Your task to perform on an android device: turn notification dots off Image 0: 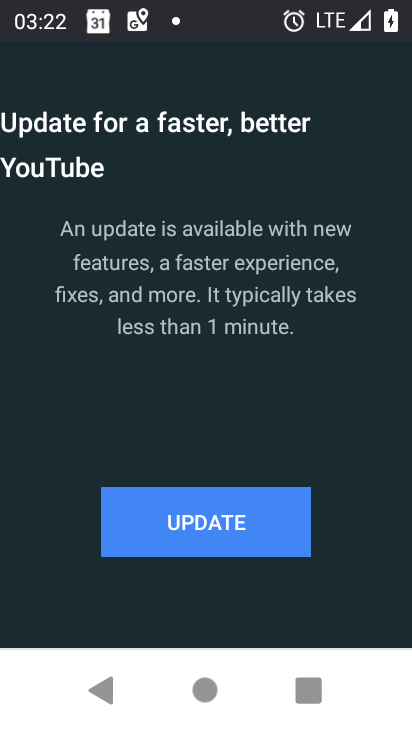
Step 0: press home button
Your task to perform on an android device: turn notification dots off Image 1: 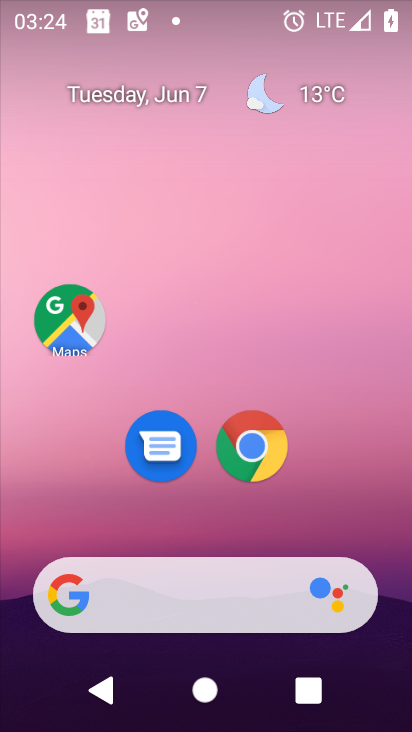
Step 1: drag from (252, 610) to (289, 0)
Your task to perform on an android device: turn notification dots off Image 2: 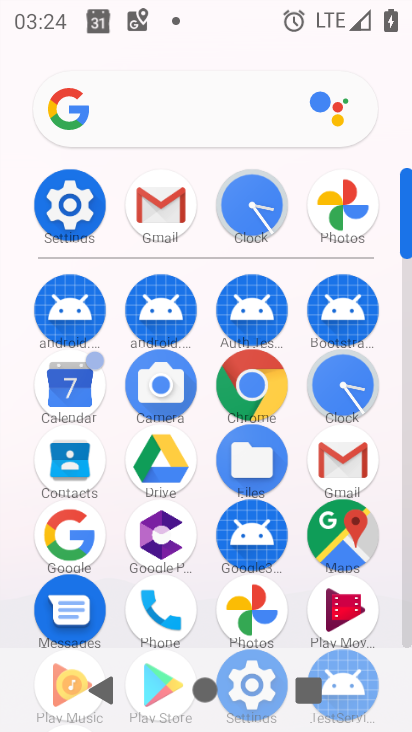
Step 2: click (76, 211)
Your task to perform on an android device: turn notification dots off Image 3: 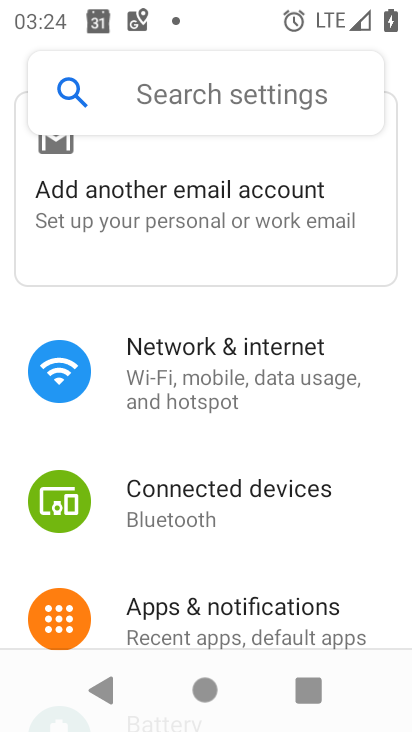
Step 3: click (238, 625)
Your task to perform on an android device: turn notification dots off Image 4: 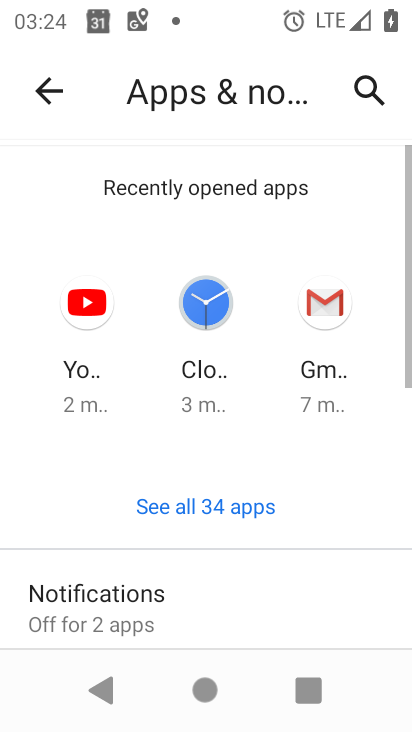
Step 4: drag from (244, 616) to (317, 155)
Your task to perform on an android device: turn notification dots off Image 5: 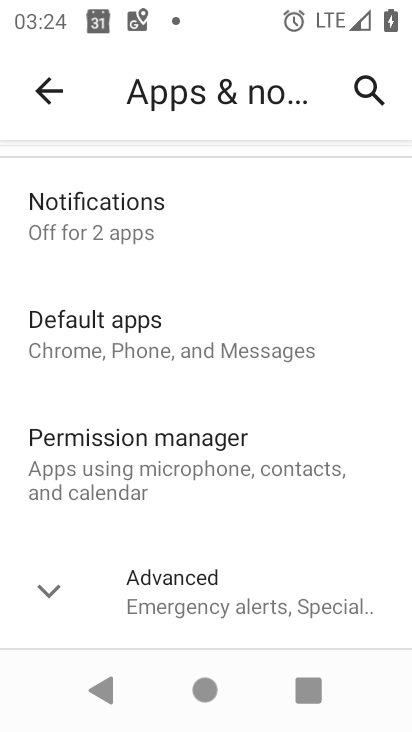
Step 5: click (98, 223)
Your task to perform on an android device: turn notification dots off Image 6: 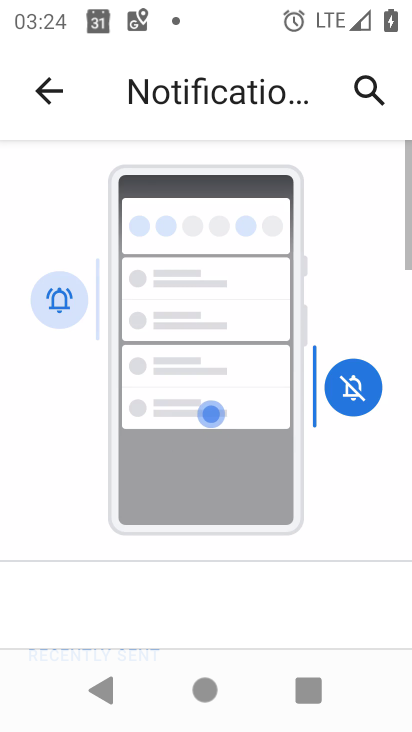
Step 6: drag from (229, 564) to (344, 25)
Your task to perform on an android device: turn notification dots off Image 7: 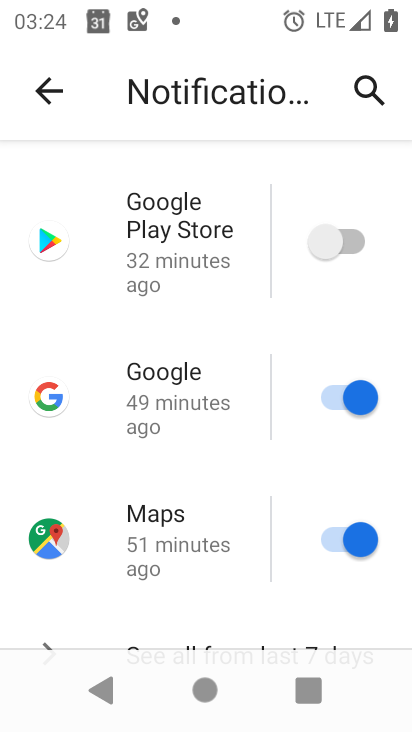
Step 7: drag from (239, 604) to (333, 131)
Your task to perform on an android device: turn notification dots off Image 8: 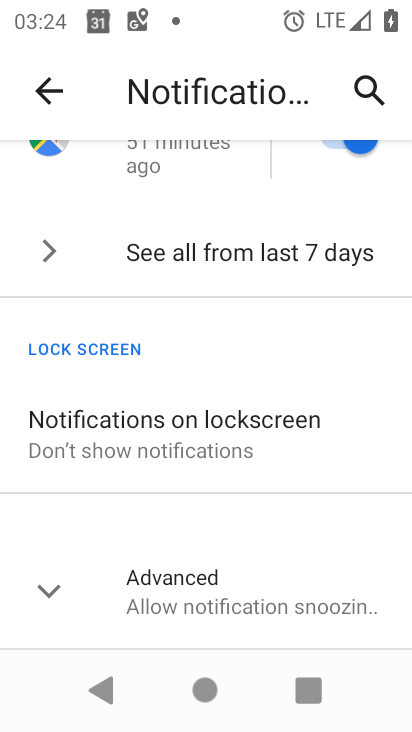
Step 8: click (231, 573)
Your task to perform on an android device: turn notification dots off Image 9: 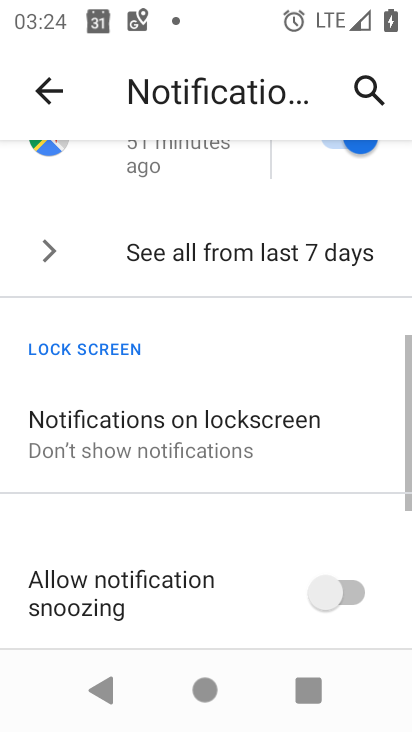
Step 9: drag from (245, 589) to (318, 75)
Your task to perform on an android device: turn notification dots off Image 10: 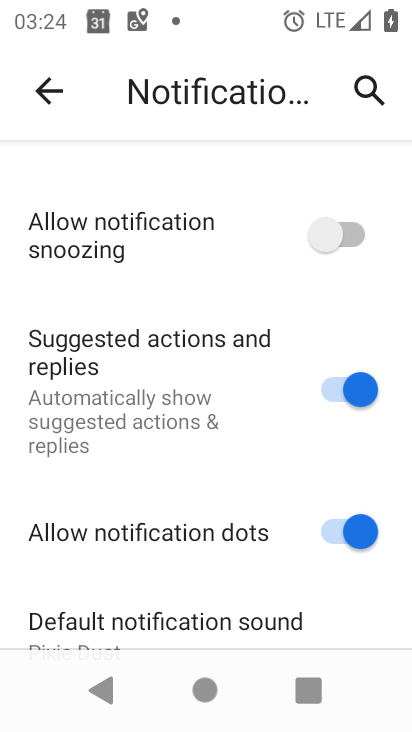
Step 10: click (346, 537)
Your task to perform on an android device: turn notification dots off Image 11: 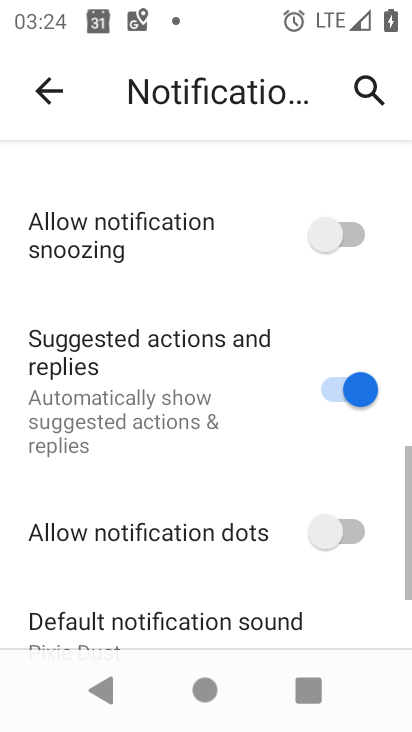
Step 11: task complete